Your task to perform on an android device: Go to Android settings Image 0: 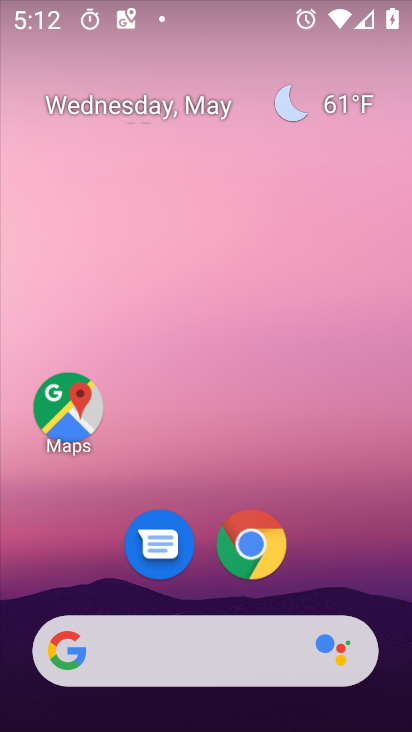
Step 0: drag from (194, 619) to (187, 170)
Your task to perform on an android device: Go to Android settings Image 1: 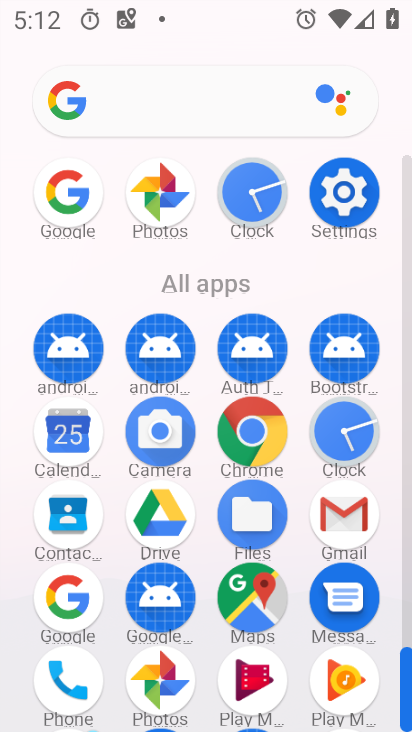
Step 1: click (352, 181)
Your task to perform on an android device: Go to Android settings Image 2: 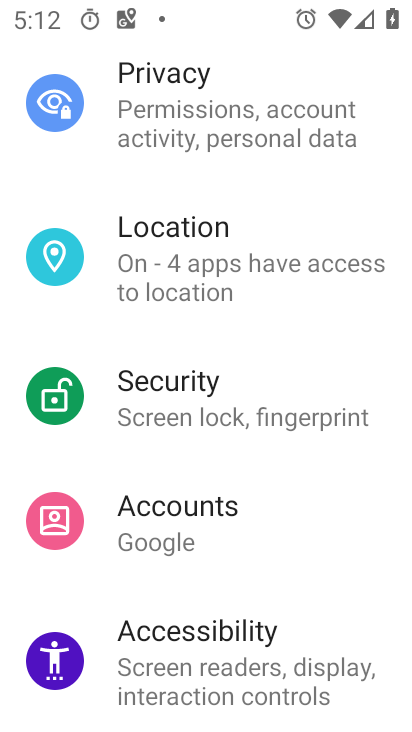
Step 2: task complete